Your task to perform on an android device: delete a single message in the gmail app Image 0: 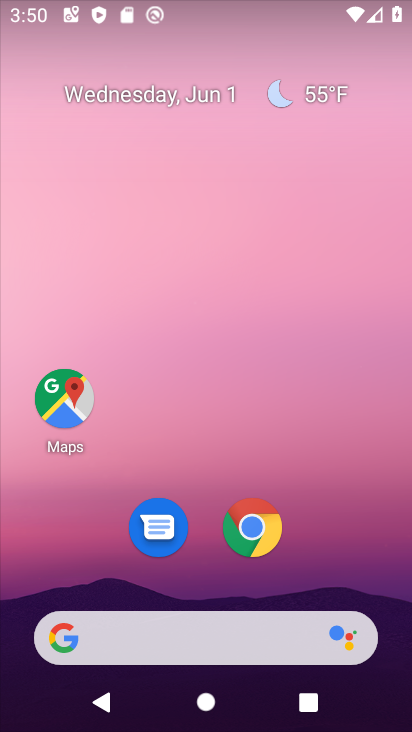
Step 0: drag from (349, 547) to (302, 41)
Your task to perform on an android device: delete a single message in the gmail app Image 1: 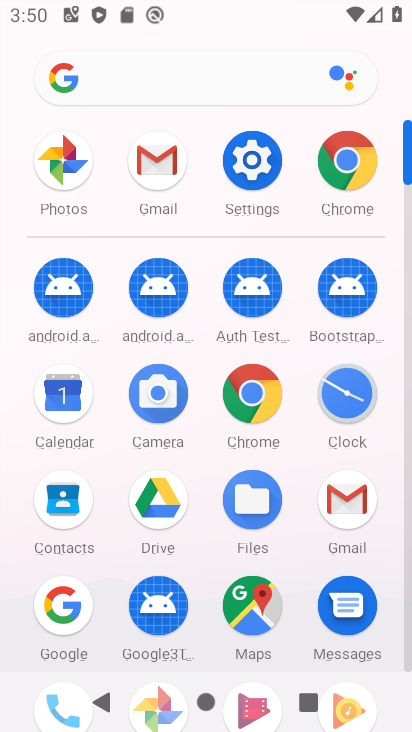
Step 1: click (349, 505)
Your task to perform on an android device: delete a single message in the gmail app Image 2: 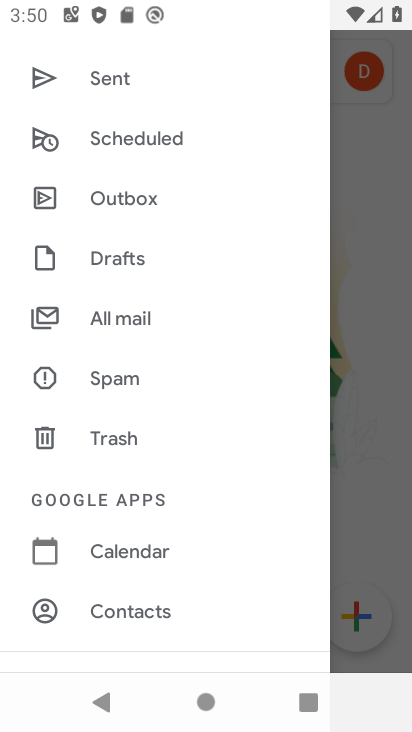
Step 2: click (360, 381)
Your task to perform on an android device: delete a single message in the gmail app Image 3: 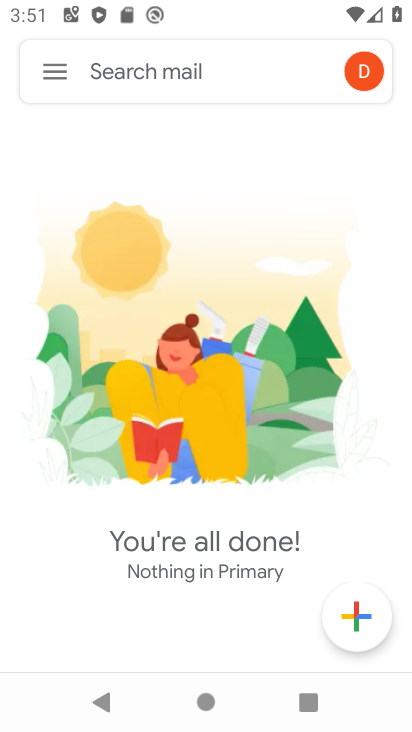
Step 3: task complete